Your task to perform on an android device: turn off location Image 0: 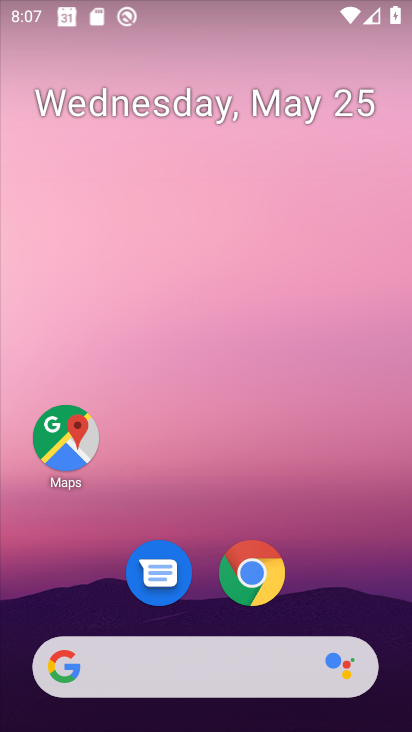
Step 0: drag from (382, 577) to (310, 190)
Your task to perform on an android device: turn off location Image 1: 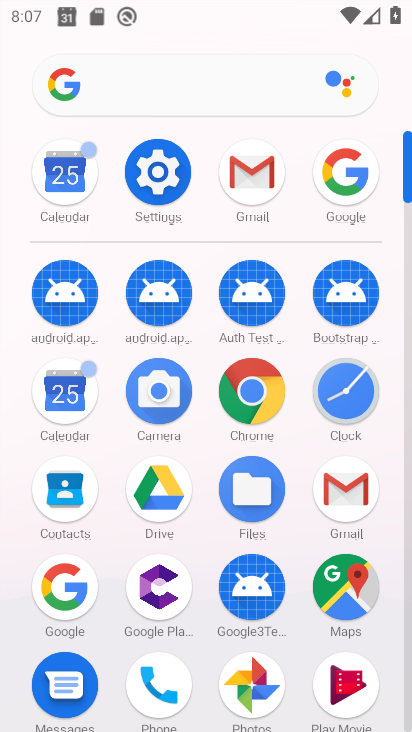
Step 1: click (187, 178)
Your task to perform on an android device: turn off location Image 2: 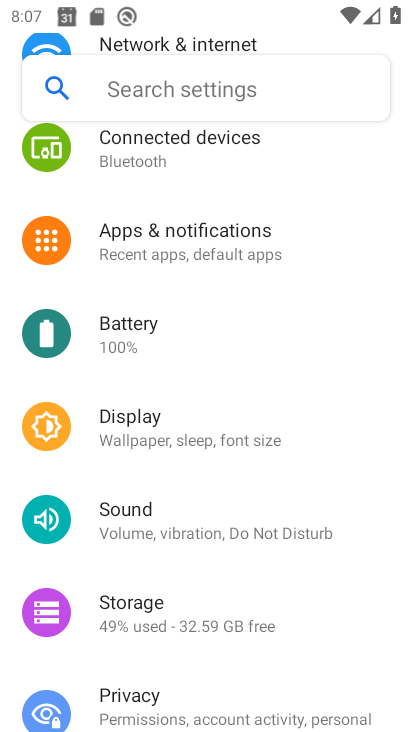
Step 2: drag from (249, 704) to (216, 309)
Your task to perform on an android device: turn off location Image 3: 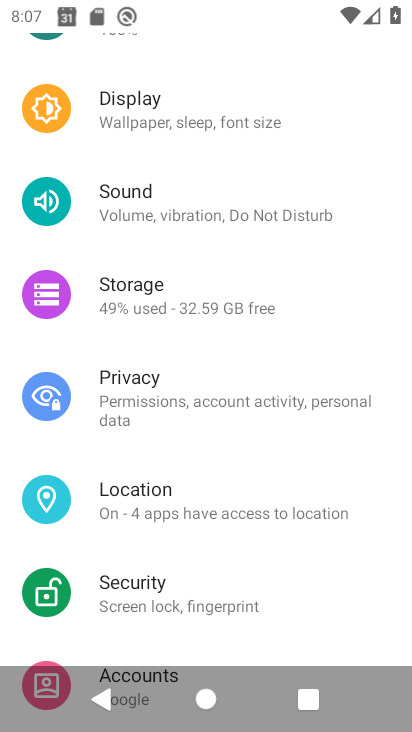
Step 3: click (144, 498)
Your task to perform on an android device: turn off location Image 4: 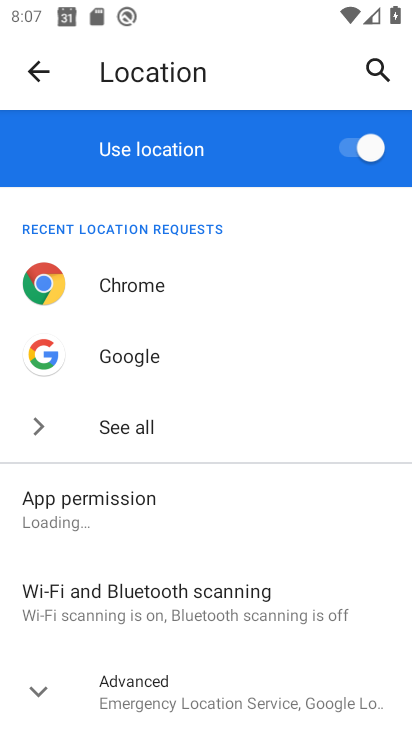
Step 4: drag from (289, 672) to (286, 461)
Your task to perform on an android device: turn off location Image 5: 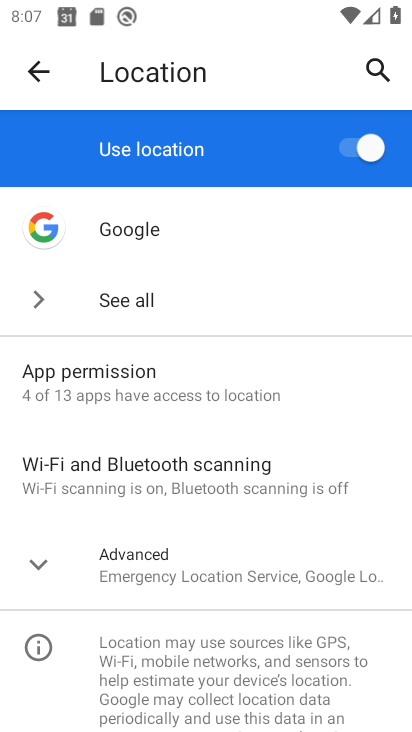
Step 5: click (355, 141)
Your task to perform on an android device: turn off location Image 6: 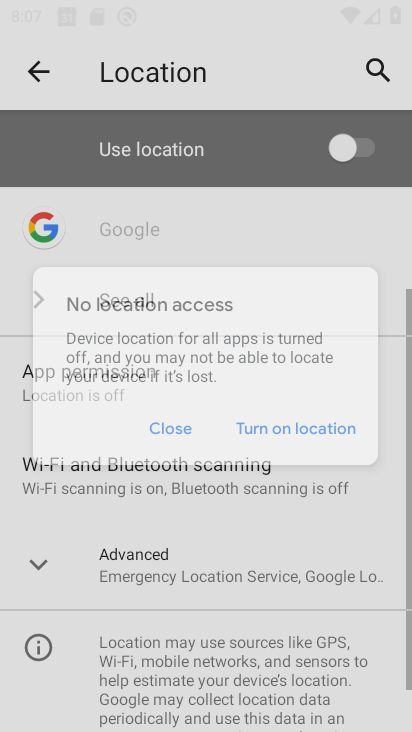
Step 6: task complete